Your task to perform on an android device: check storage Image 0: 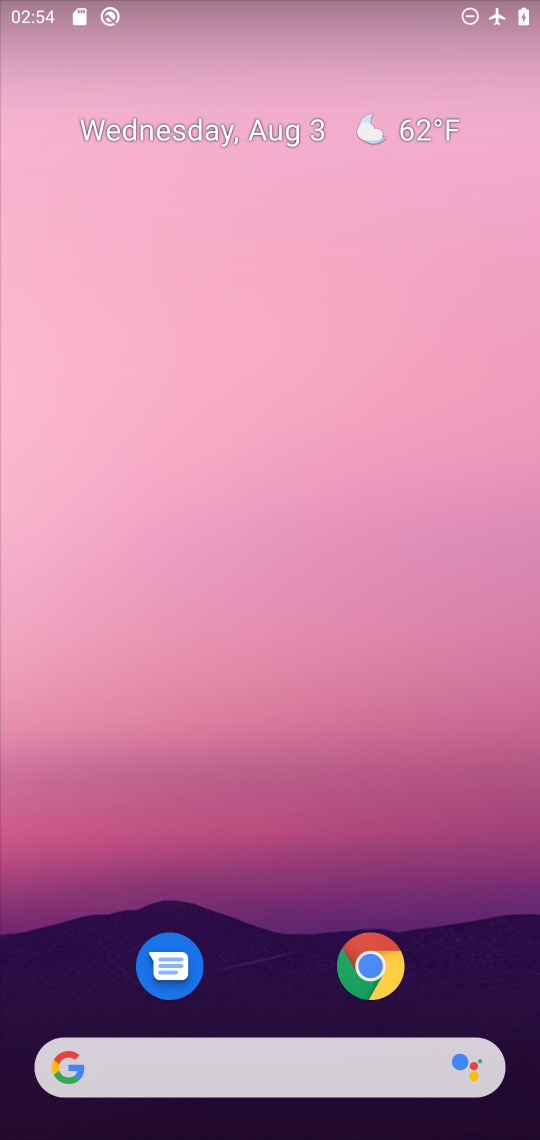
Step 0: drag from (278, 905) to (278, 343)
Your task to perform on an android device: check storage Image 1: 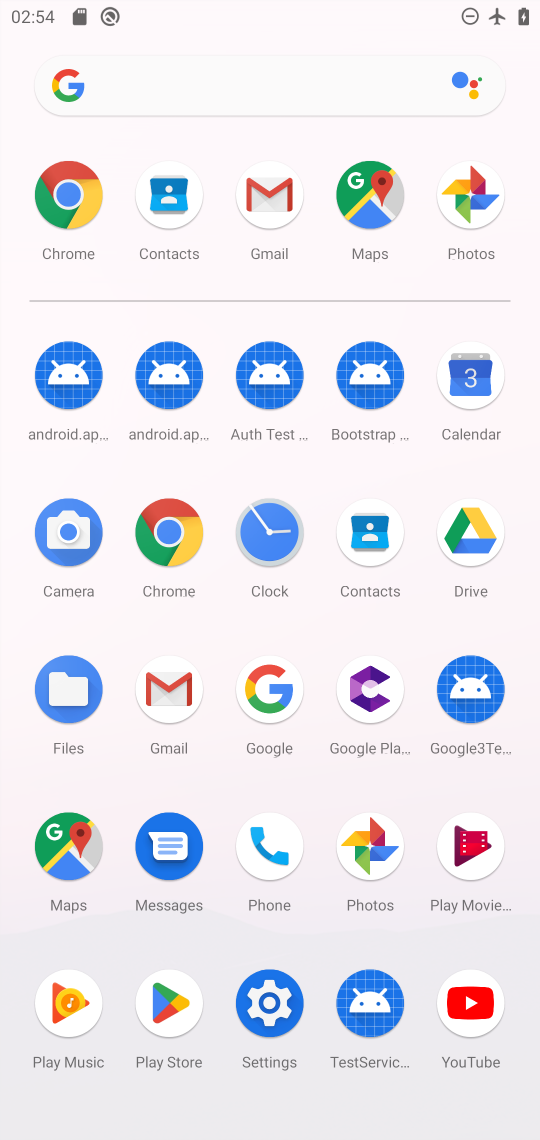
Step 1: click (265, 1001)
Your task to perform on an android device: check storage Image 2: 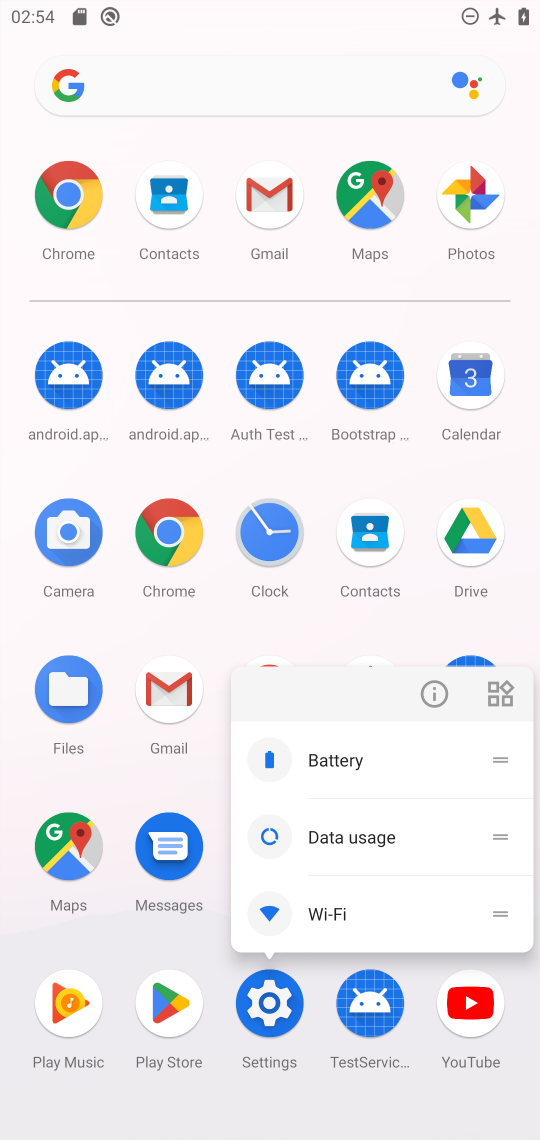
Step 2: click (266, 1001)
Your task to perform on an android device: check storage Image 3: 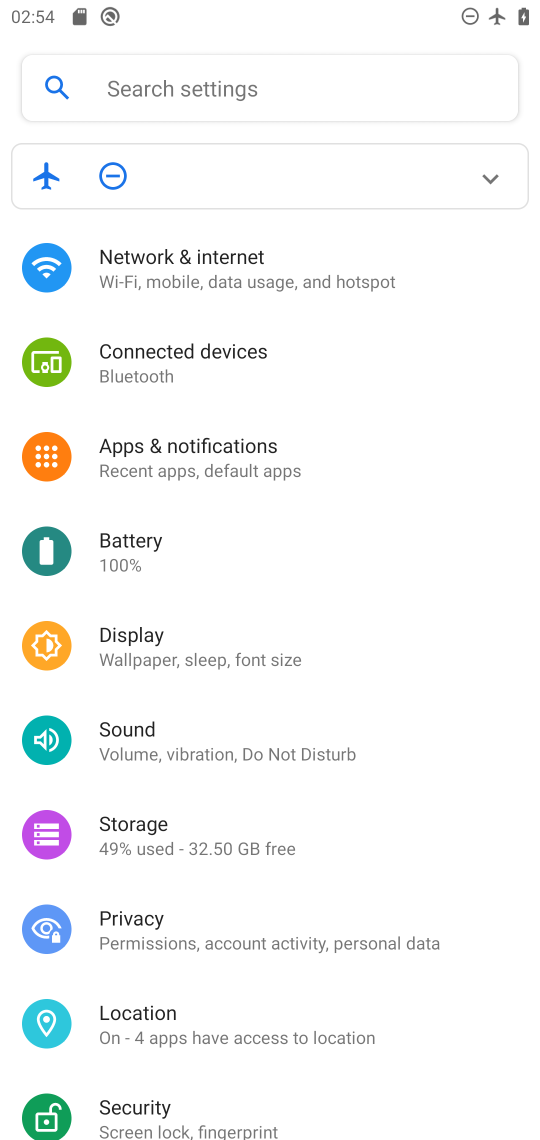
Step 3: drag from (257, 1027) to (288, 559)
Your task to perform on an android device: check storage Image 4: 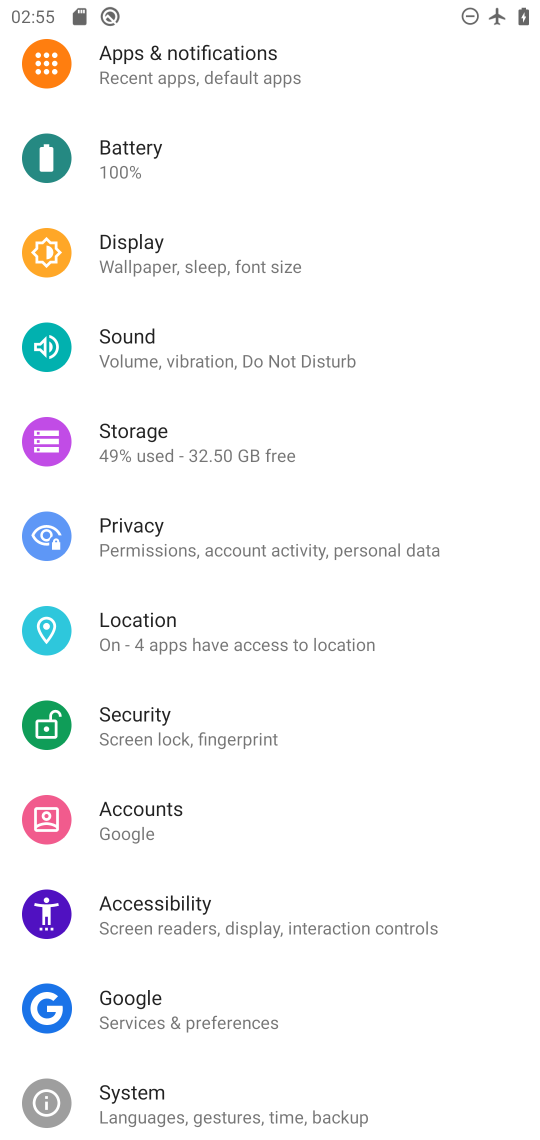
Step 4: click (219, 456)
Your task to perform on an android device: check storage Image 5: 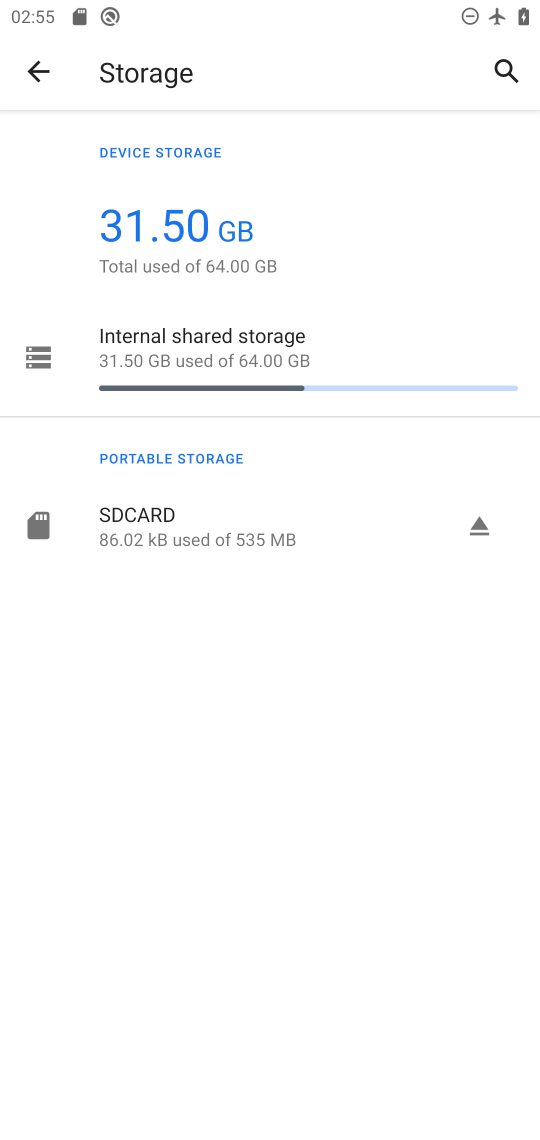
Step 5: task complete